Your task to perform on an android device: turn on bluetooth scan Image 0: 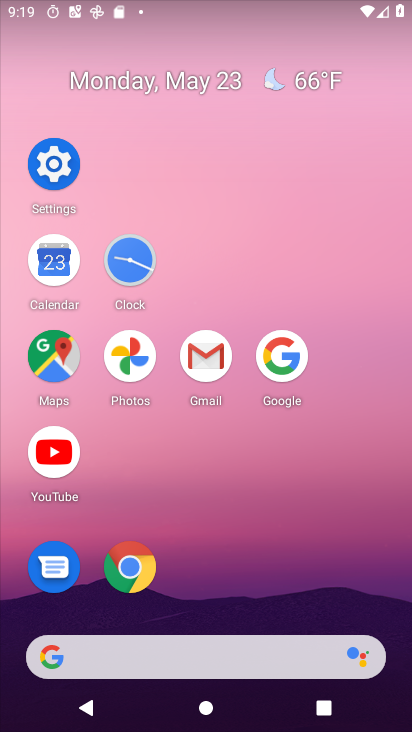
Step 0: click (61, 165)
Your task to perform on an android device: turn on bluetooth scan Image 1: 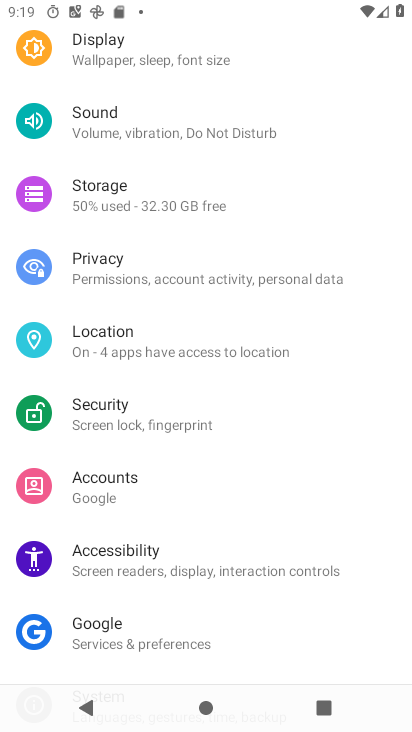
Step 1: click (170, 328)
Your task to perform on an android device: turn on bluetooth scan Image 2: 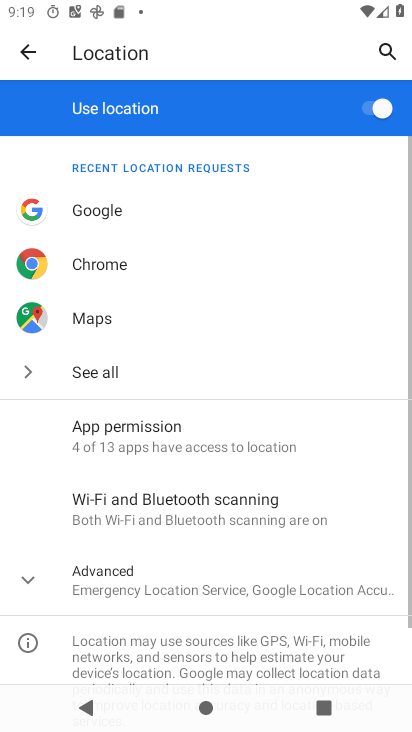
Step 2: click (209, 510)
Your task to perform on an android device: turn on bluetooth scan Image 3: 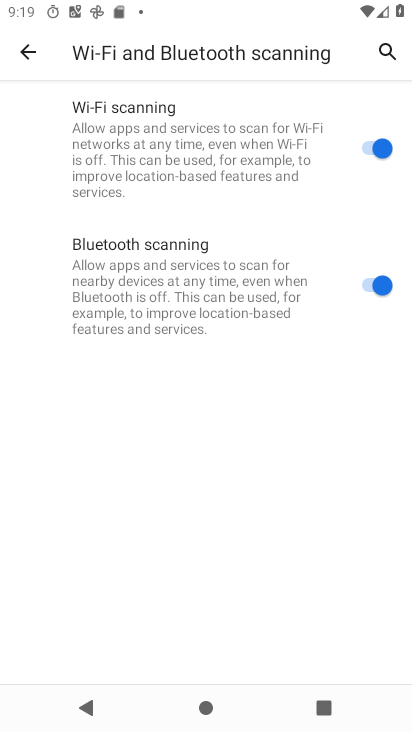
Step 3: task complete